Your task to perform on an android device: open sync settings in chrome Image 0: 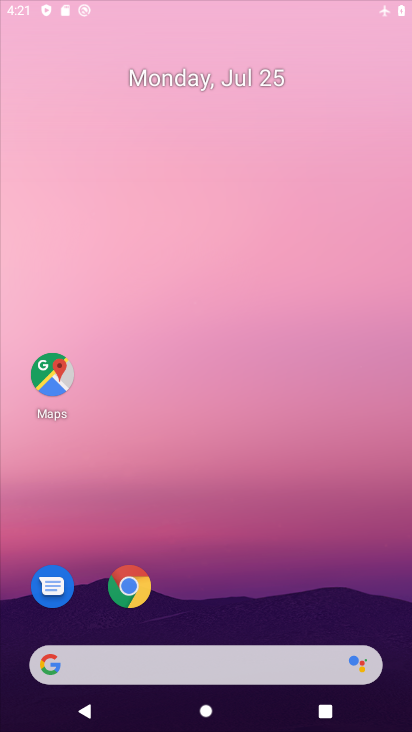
Step 0: click (299, 358)
Your task to perform on an android device: open sync settings in chrome Image 1: 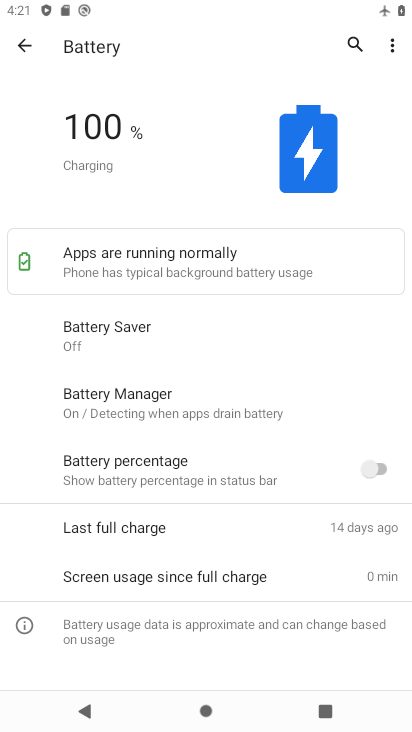
Step 1: click (20, 46)
Your task to perform on an android device: open sync settings in chrome Image 2: 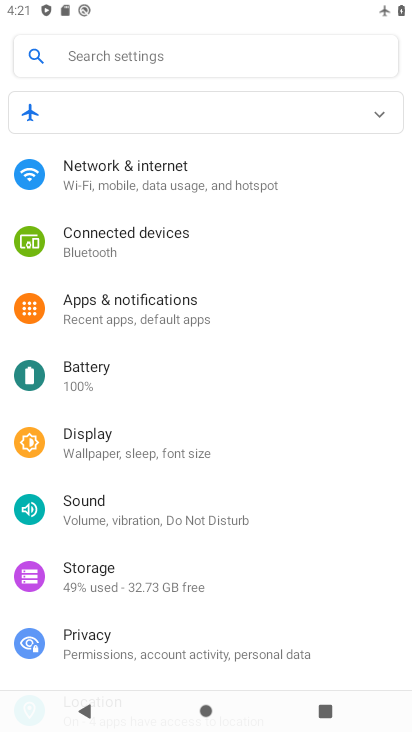
Step 2: drag from (101, 457) to (103, 269)
Your task to perform on an android device: open sync settings in chrome Image 3: 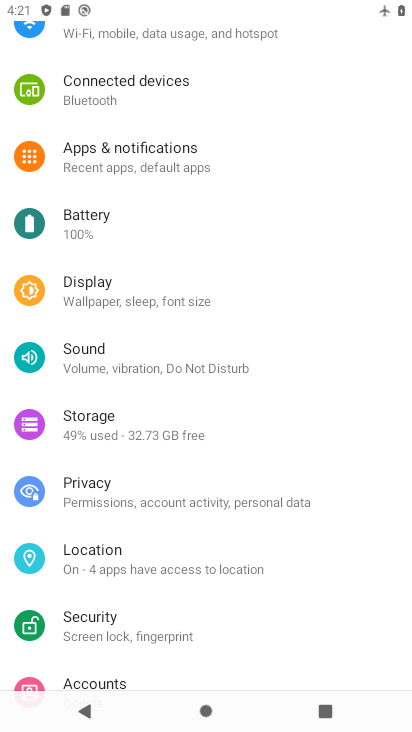
Step 3: drag from (200, 533) to (150, 111)
Your task to perform on an android device: open sync settings in chrome Image 4: 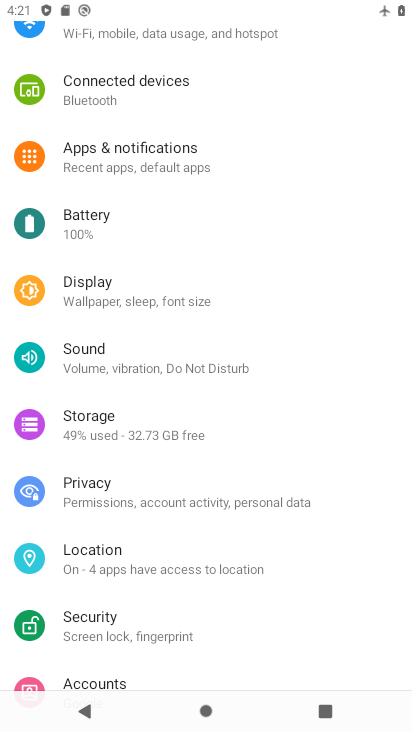
Step 4: drag from (160, 423) to (42, 83)
Your task to perform on an android device: open sync settings in chrome Image 5: 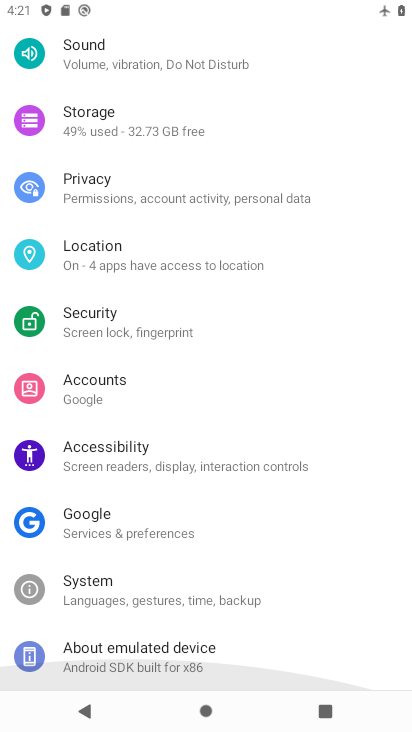
Step 5: drag from (129, 527) to (108, 152)
Your task to perform on an android device: open sync settings in chrome Image 6: 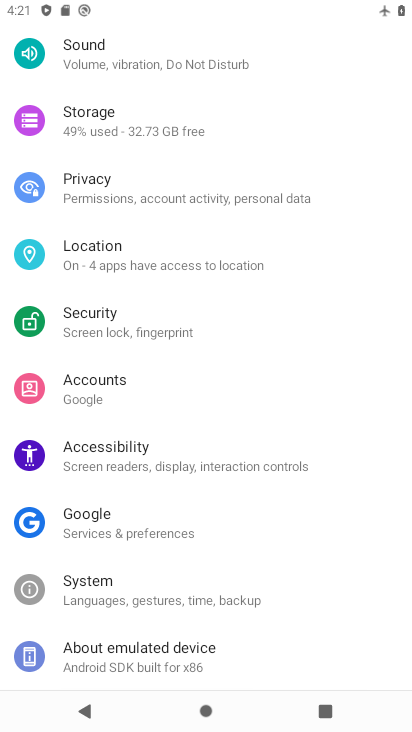
Step 6: drag from (182, 397) to (240, 586)
Your task to perform on an android device: open sync settings in chrome Image 7: 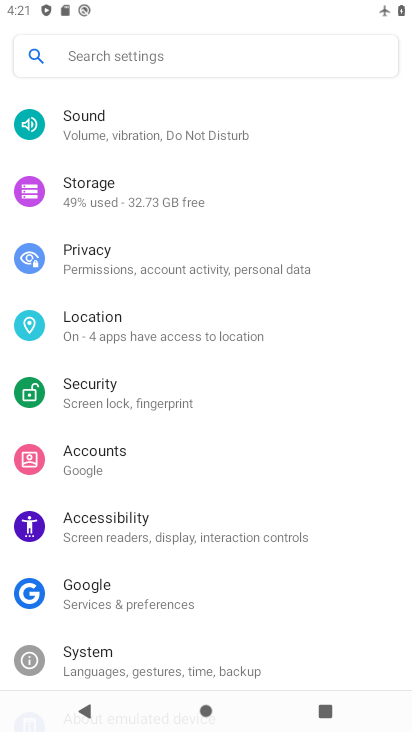
Step 7: drag from (168, 226) to (345, 716)
Your task to perform on an android device: open sync settings in chrome Image 8: 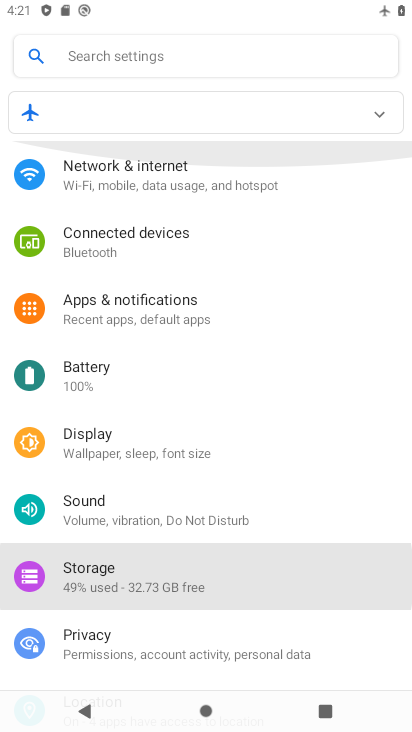
Step 8: drag from (125, 182) to (319, 565)
Your task to perform on an android device: open sync settings in chrome Image 9: 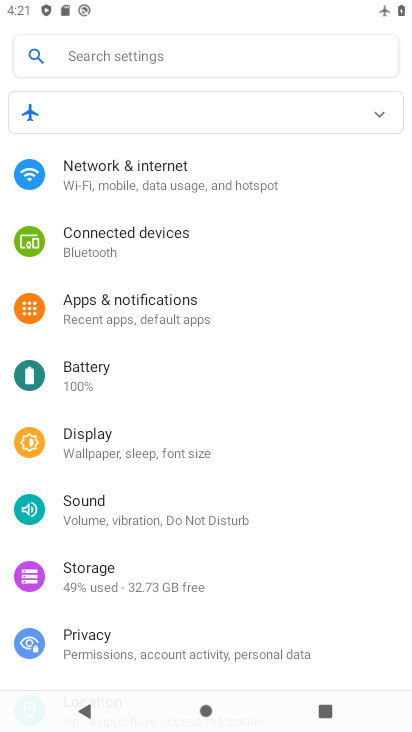
Step 9: press back button
Your task to perform on an android device: open sync settings in chrome Image 10: 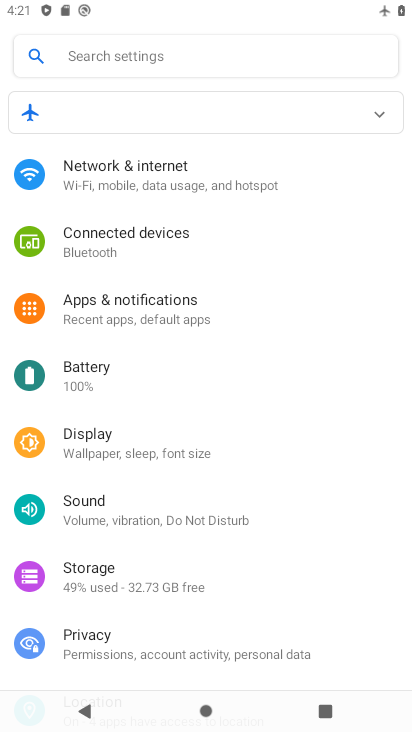
Step 10: press back button
Your task to perform on an android device: open sync settings in chrome Image 11: 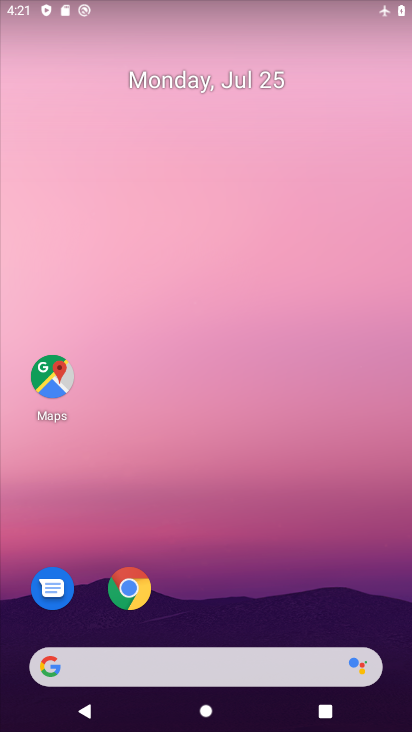
Step 11: drag from (243, 576) to (274, 217)
Your task to perform on an android device: open sync settings in chrome Image 12: 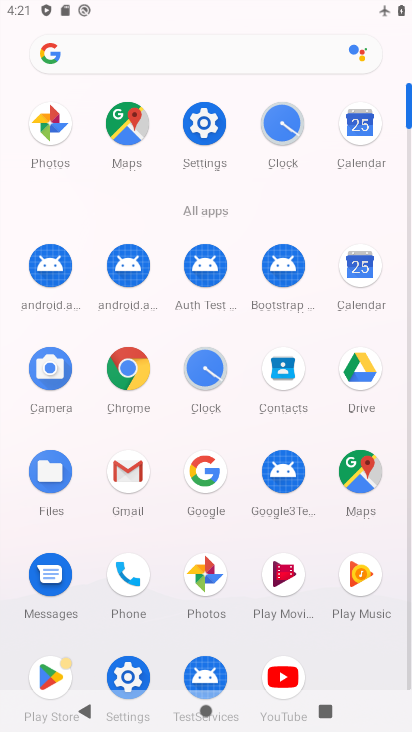
Step 12: click (129, 375)
Your task to perform on an android device: open sync settings in chrome Image 13: 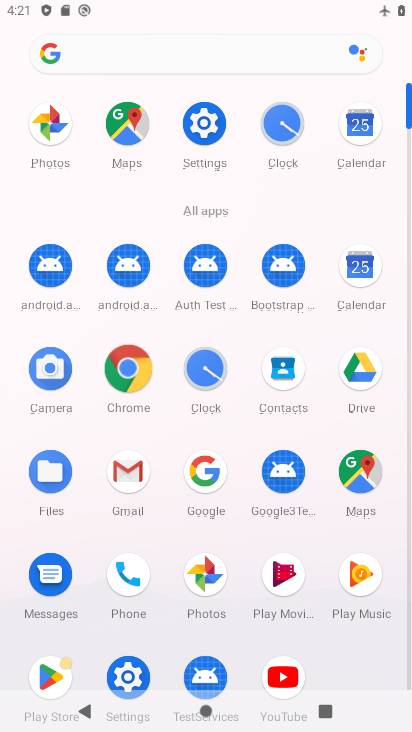
Step 13: click (130, 370)
Your task to perform on an android device: open sync settings in chrome Image 14: 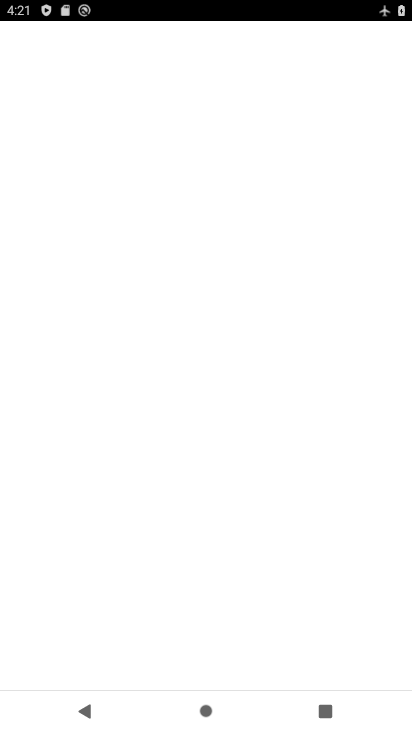
Step 14: click (132, 374)
Your task to perform on an android device: open sync settings in chrome Image 15: 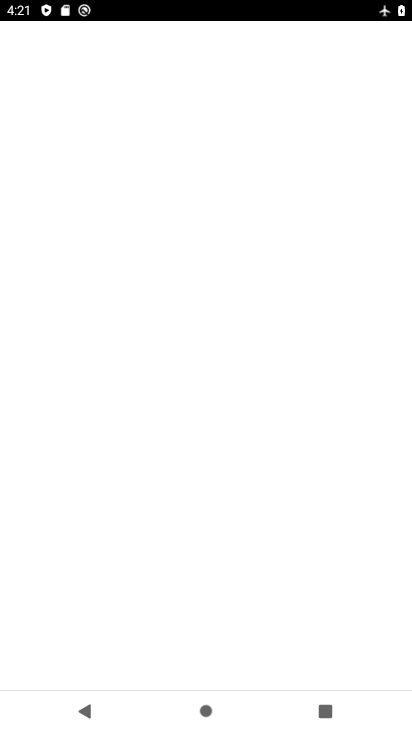
Step 15: click (135, 377)
Your task to perform on an android device: open sync settings in chrome Image 16: 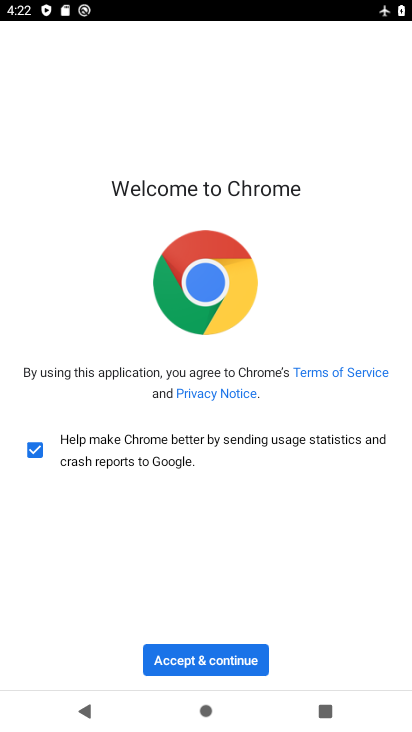
Step 16: click (196, 650)
Your task to perform on an android device: open sync settings in chrome Image 17: 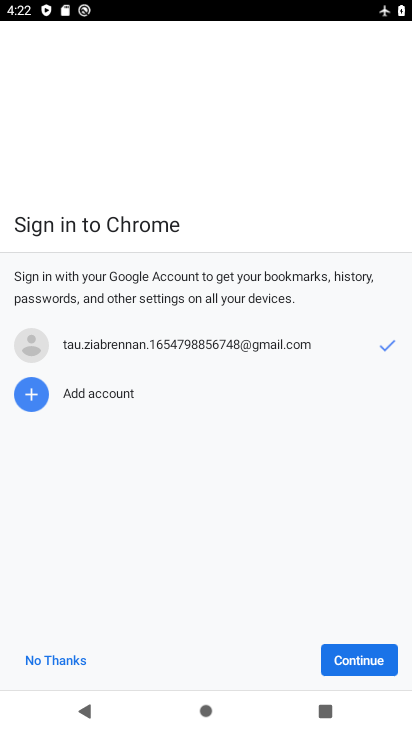
Step 17: click (199, 649)
Your task to perform on an android device: open sync settings in chrome Image 18: 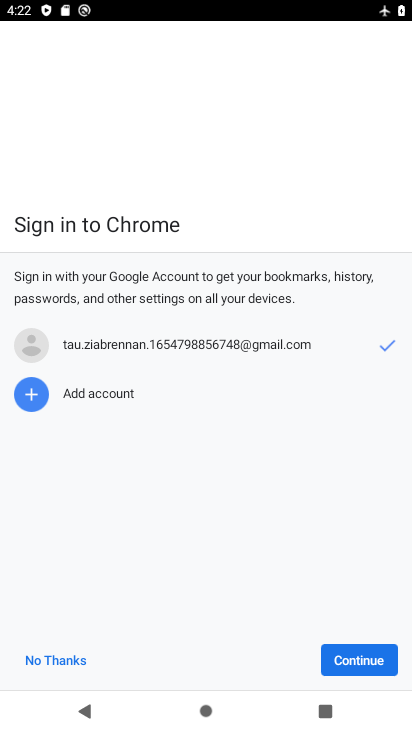
Step 18: click (206, 649)
Your task to perform on an android device: open sync settings in chrome Image 19: 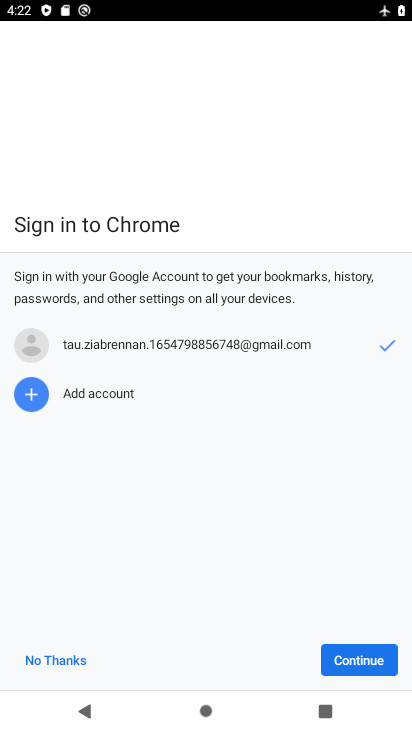
Step 19: click (207, 649)
Your task to perform on an android device: open sync settings in chrome Image 20: 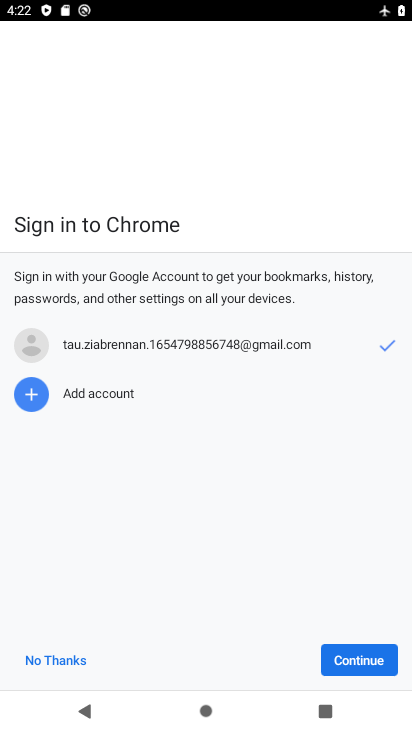
Step 20: click (73, 655)
Your task to perform on an android device: open sync settings in chrome Image 21: 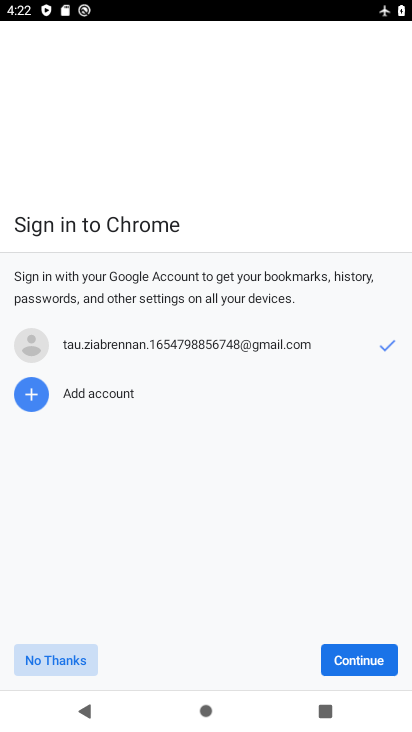
Step 21: click (71, 656)
Your task to perform on an android device: open sync settings in chrome Image 22: 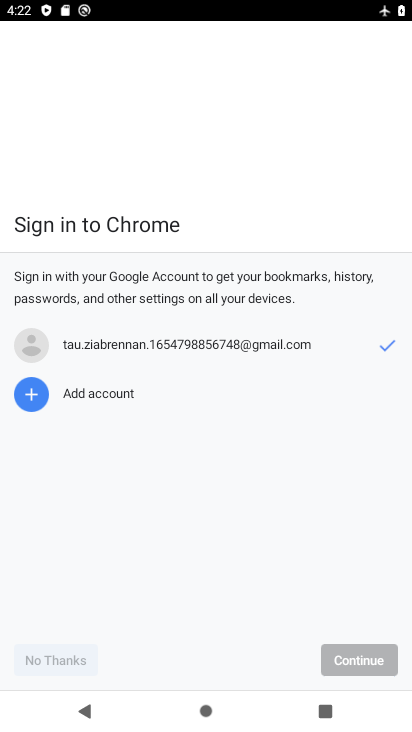
Step 22: click (72, 657)
Your task to perform on an android device: open sync settings in chrome Image 23: 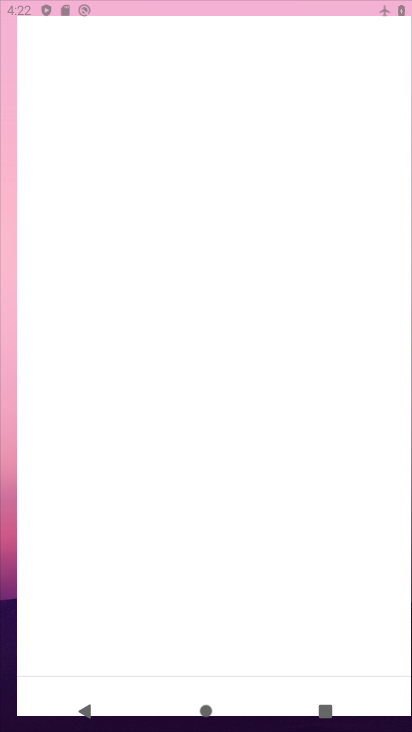
Step 23: click (74, 660)
Your task to perform on an android device: open sync settings in chrome Image 24: 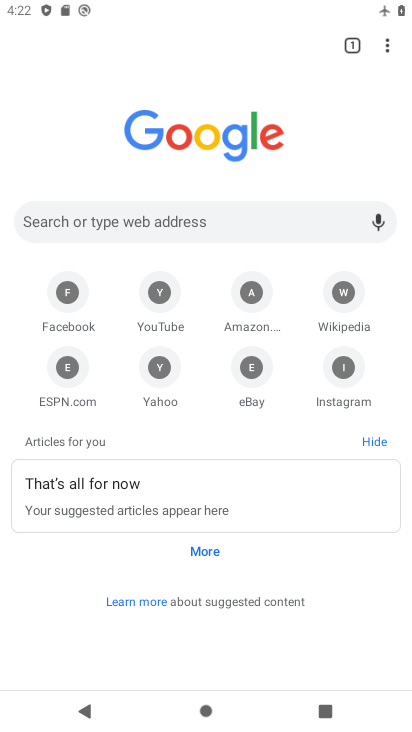
Step 24: click (373, 42)
Your task to perform on an android device: open sync settings in chrome Image 25: 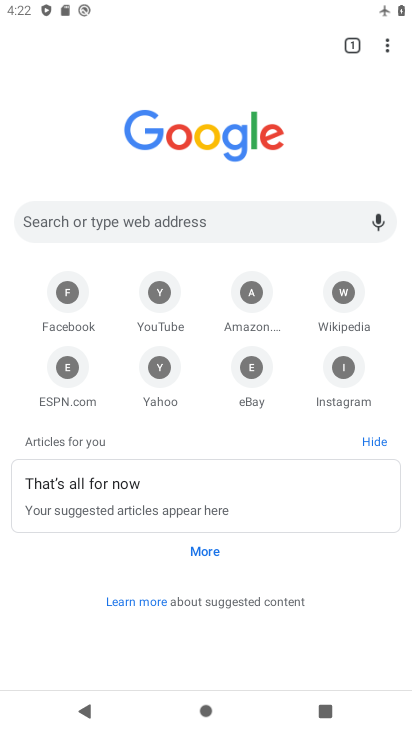
Step 25: click (388, 50)
Your task to perform on an android device: open sync settings in chrome Image 26: 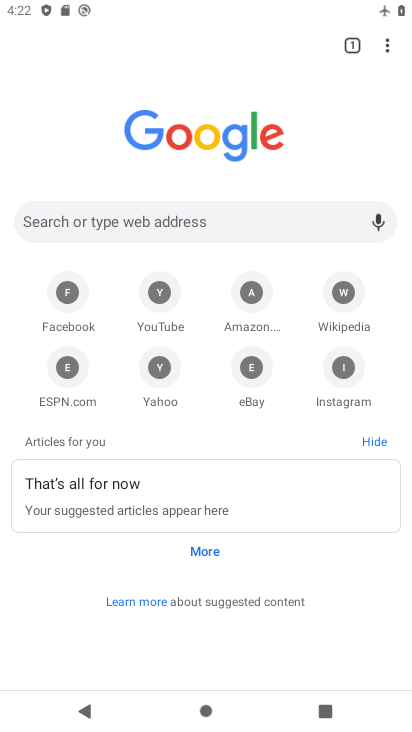
Step 26: click (391, 52)
Your task to perform on an android device: open sync settings in chrome Image 27: 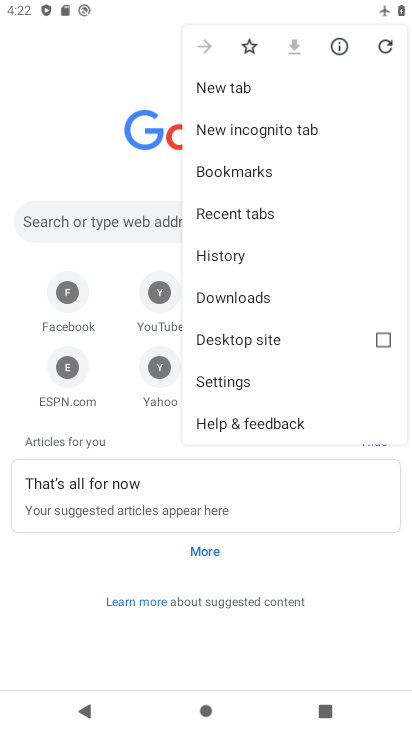
Step 27: click (393, 40)
Your task to perform on an android device: open sync settings in chrome Image 28: 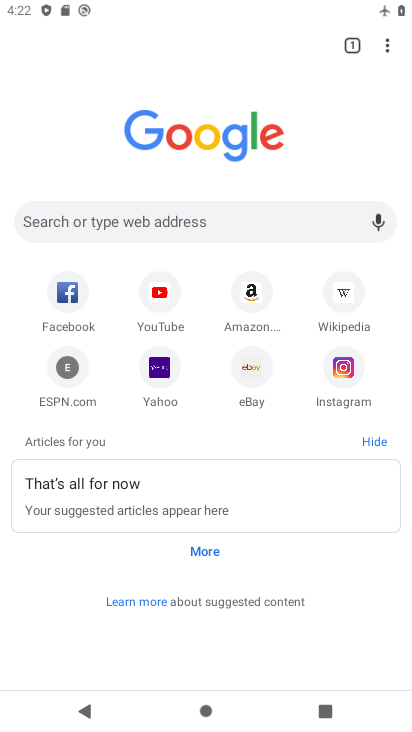
Step 28: drag from (379, 41) to (205, 382)
Your task to perform on an android device: open sync settings in chrome Image 29: 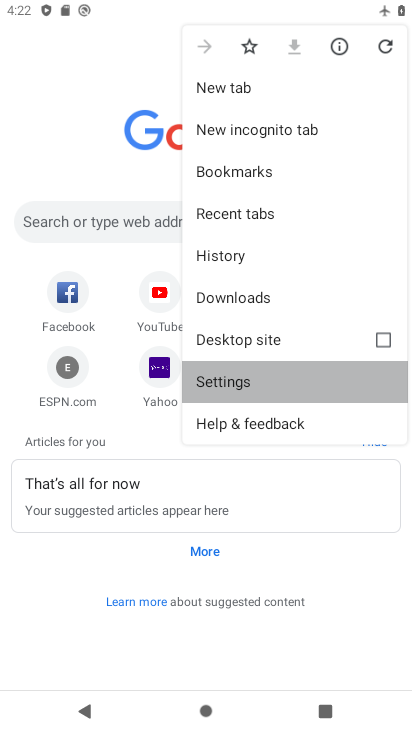
Step 29: click (213, 388)
Your task to perform on an android device: open sync settings in chrome Image 30: 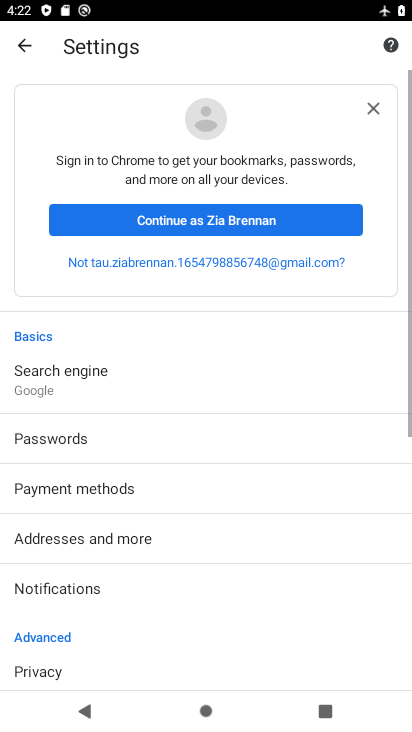
Step 30: drag from (166, 621) to (97, 328)
Your task to perform on an android device: open sync settings in chrome Image 31: 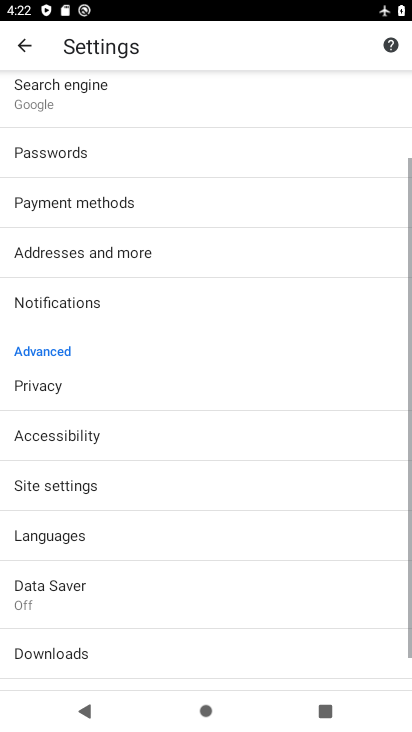
Step 31: drag from (122, 498) to (93, 358)
Your task to perform on an android device: open sync settings in chrome Image 32: 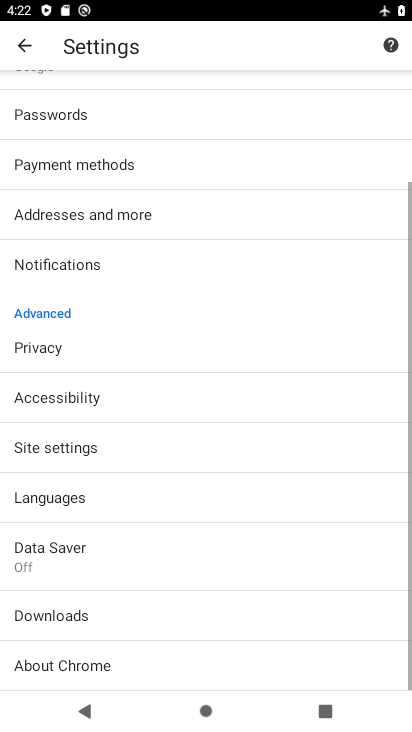
Step 32: drag from (123, 218) to (134, 138)
Your task to perform on an android device: open sync settings in chrome Image 33: 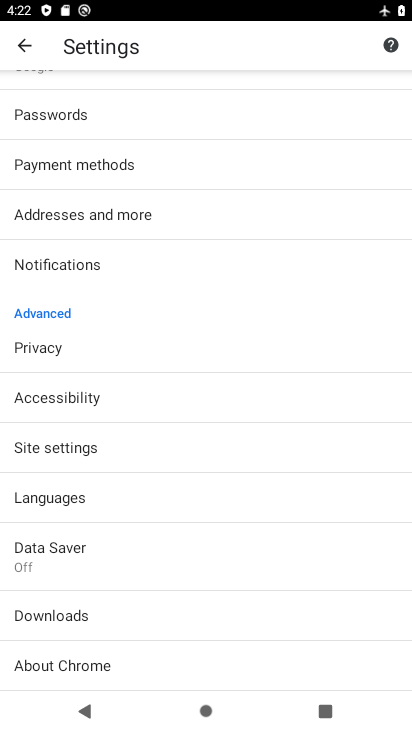
Step 33: click (44, 442)
Your task to perform on an android device: open sync settings in chrome Image 34: 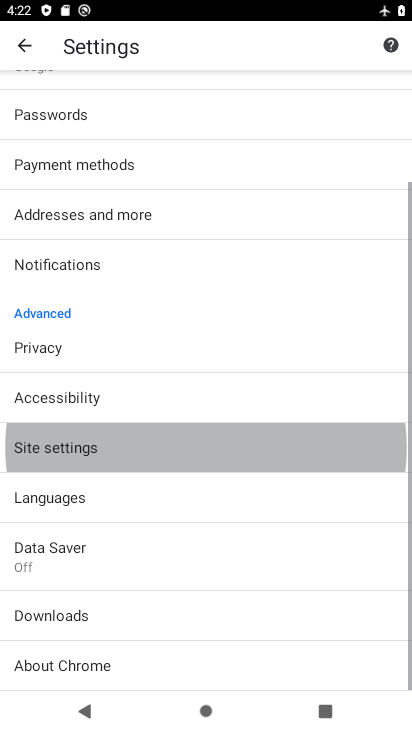
Step 34: click (47, 438)
Your task to perform on an android device: open sync settings in chrome Image 35: 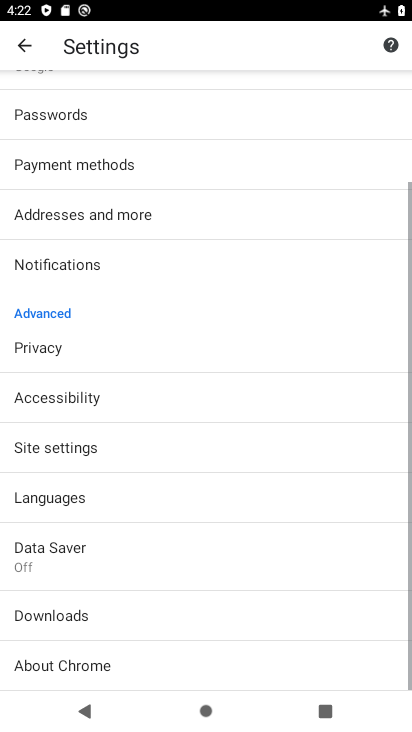
Step 35: click (50, 437)
Your task to perform on an android device: open sync settings in chrome Image 36: 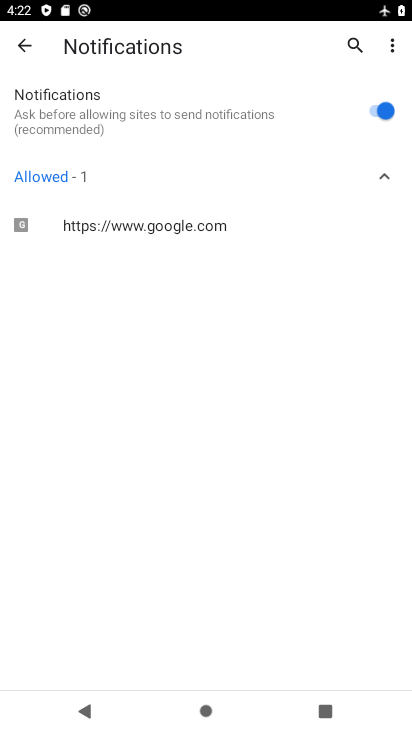
Step 36: click (25, 45)
Your task to perform on an android device: open sync settings in chrome Image 37: 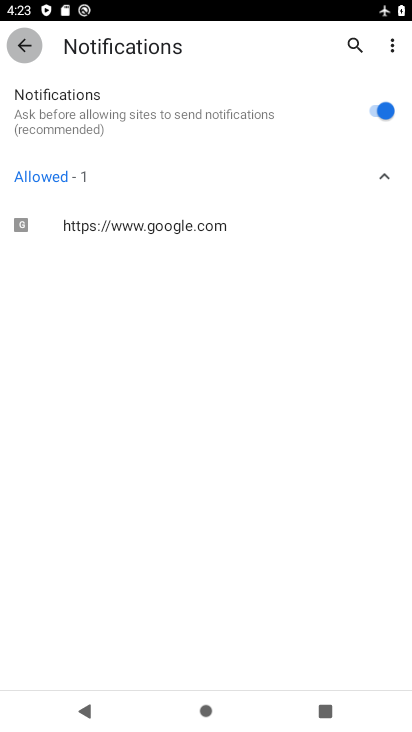
Step 37: click (23, 46)
Your task to perform on an android device: open sync settings in chrome Image 38: 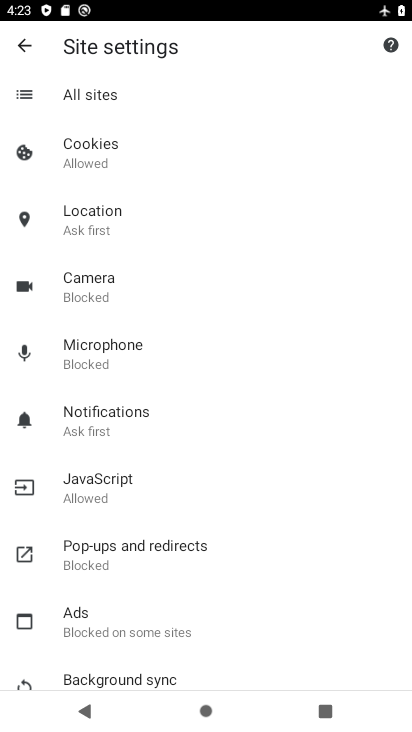
Step 38: drag from (101, 626) to (111, 358)
Your task to perform on an android device: open sync settings in chrome Image 39: 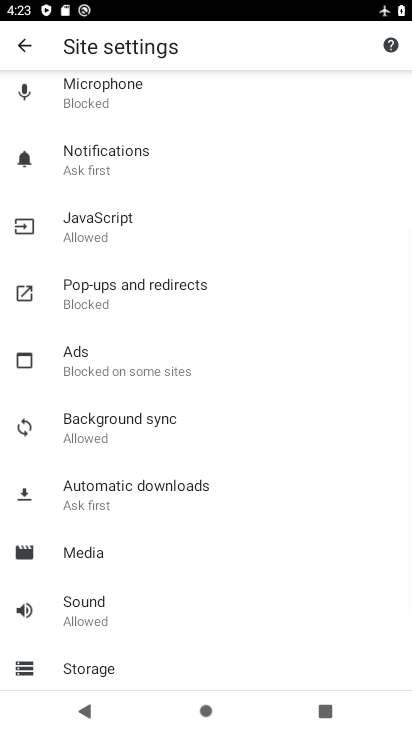
Step 39: click (95, 422)
Your task to perform on an android device: open sync settings in chrome Image 40: 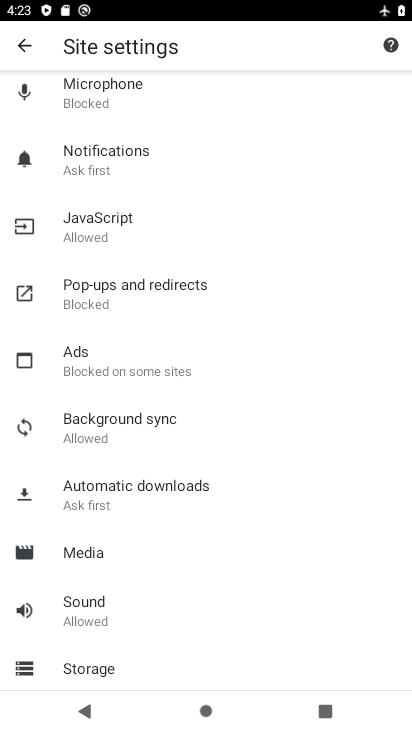
Step 40: click (103, 413)
Your task to perform on an android device: open sync settings in chrome Image 41: 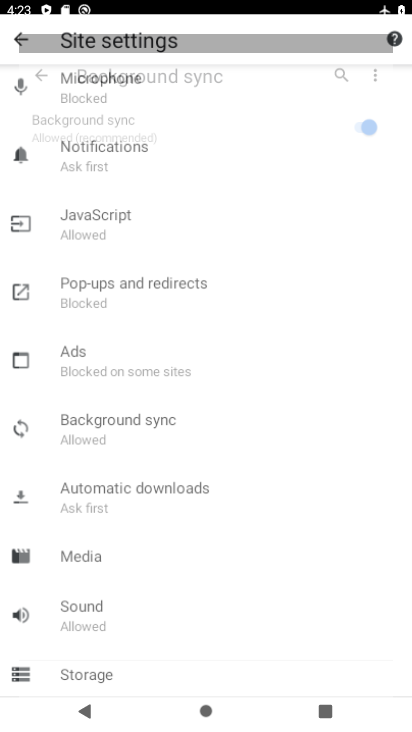
Step 41: click (118, 417)
Your task to perform on an android device: open sync settings in chrome Image 42: 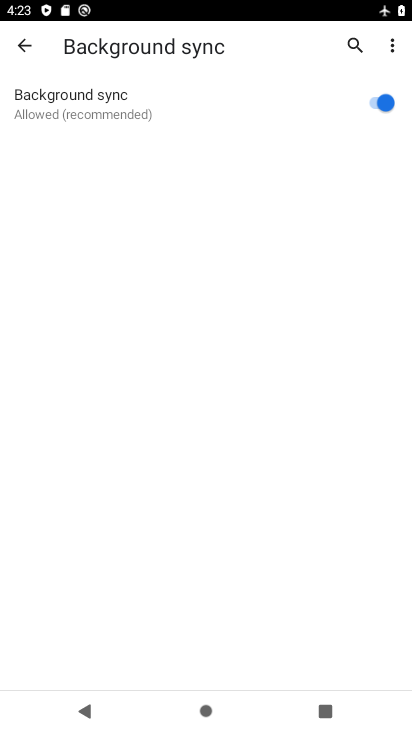
Step 42: task complete